Your task to perform on an android device: Open my contact list Image 0: 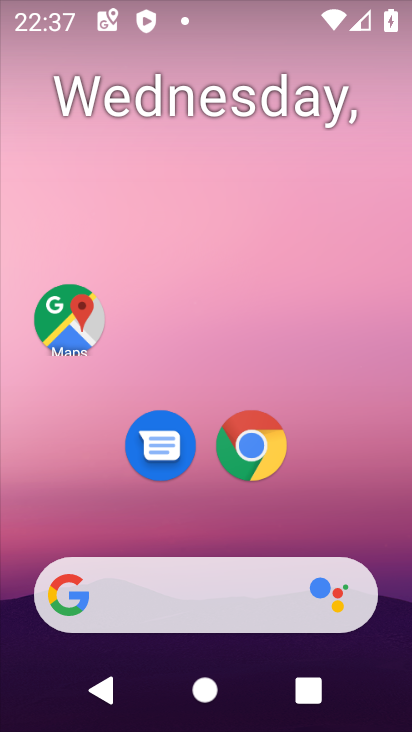
Step 0: drag from (302, 503) to (291, 192)
Your task to perform on an android device: Open my contact list Image 1: 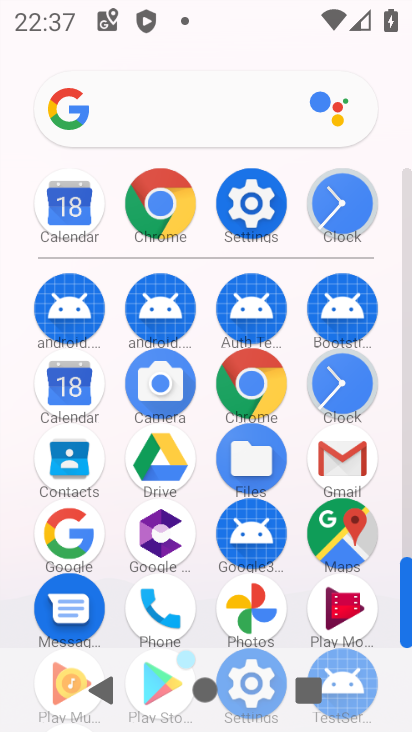
Step 1: click (168, 594)
Your task to perform on an android device: Open my contact list Image 2: 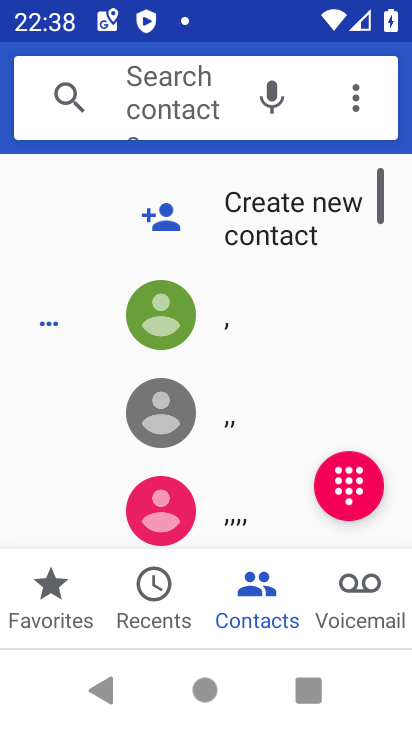
Step 2: click (235, 587)
Your task to perform on an android device: Open my contact list Image 3: 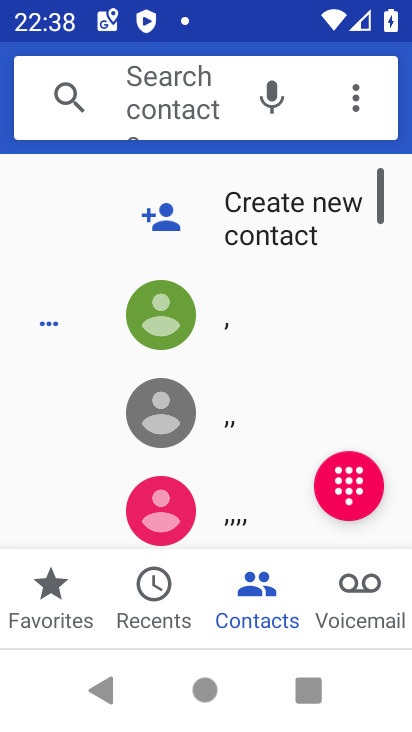
Step 3: task complete